Your task to perform on an android device: set the timer Image 0: 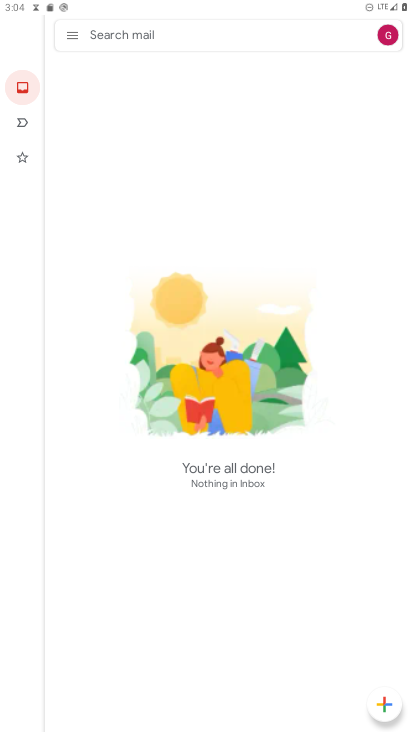
Step 0: press home button
Your task to perform on an android device: set the timer Image 1: 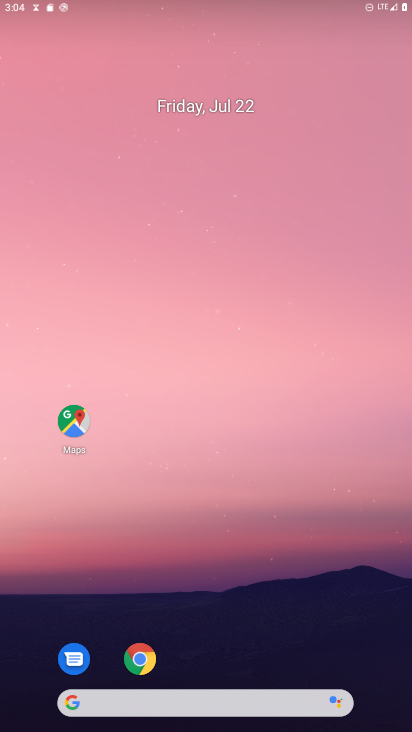
Step 1: drag from (272, 645) to (280, 207)
Your task to perform on an android device: set the timer Image 2: 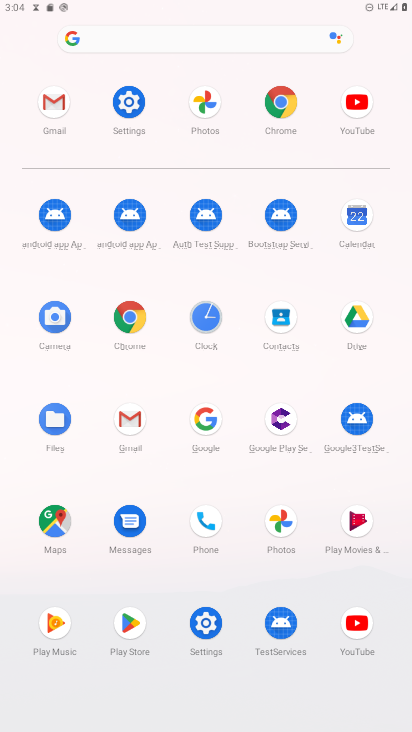
Step 2: click (205, 324)
Your task to perform on an android device: set the timer Image 3: 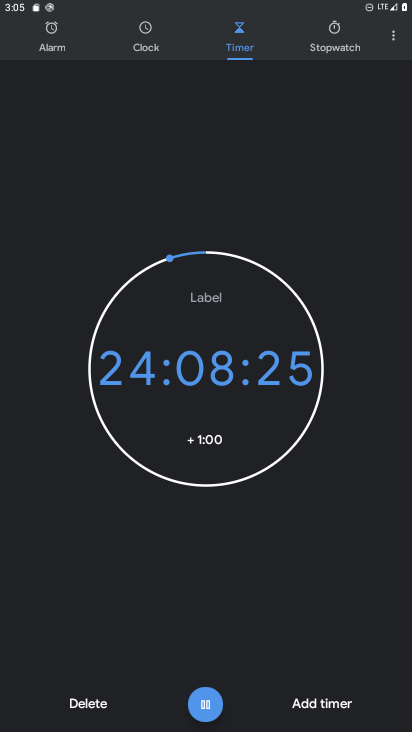
Step 3: task complete